Your task to perform on an android device: Open Android settings Image 0: 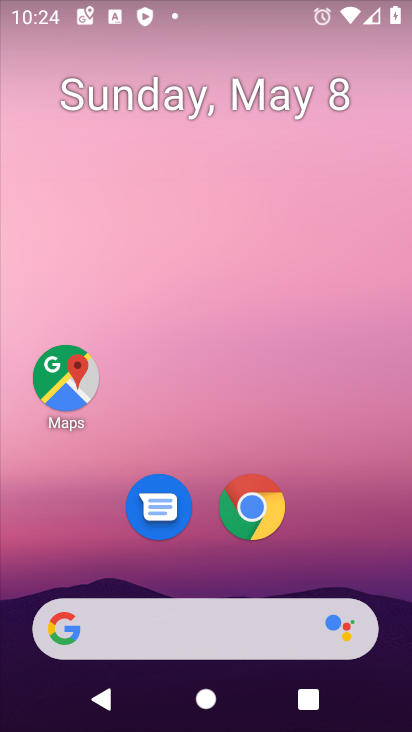
Step 0: drag from (270, 698) to (347, 7)
Your task to perform on an android device: Open Android settings Image 1: 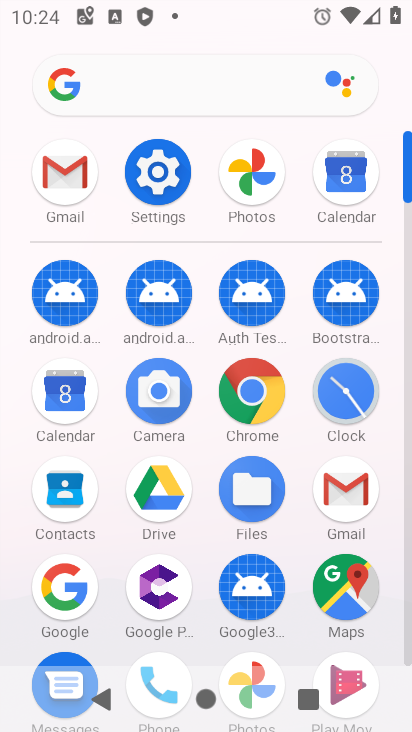
Step 1: click (176, 164)
Your task to perform on an android device: Open Android settings Image 2: 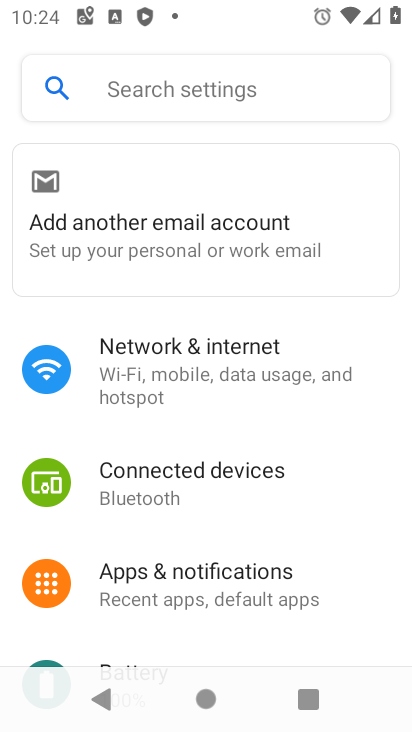
Step 2: task complete